Your task to perform on an android device: What's on my calendar today? Image 0: 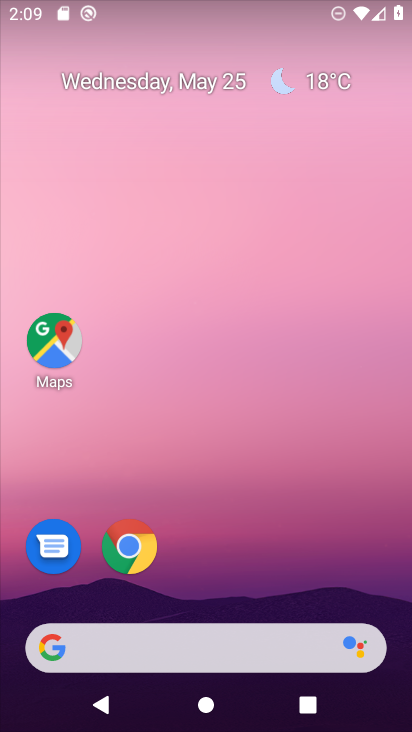
Step 0: drag from (200, 623) to (276, 143)
Your task to perform on an android device: What's on my calendar today? Image 1: 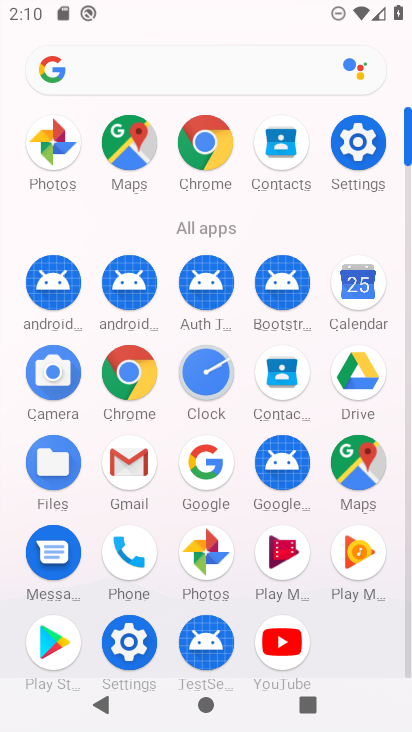
Step 1: click (357, 287)
Your task to perform on an android device: What's on my calendar today? Image 2: 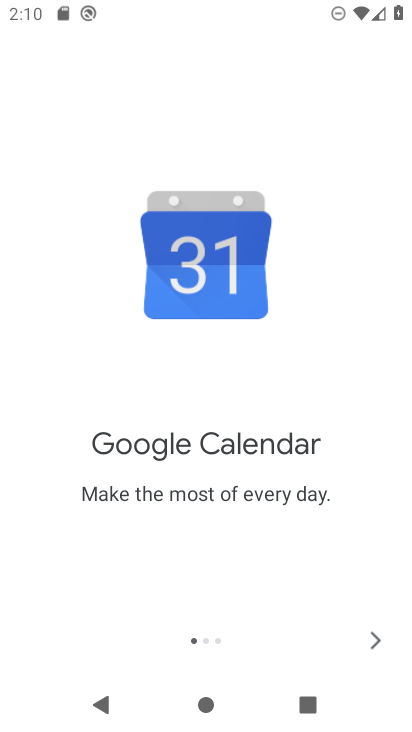
Step 2: click (353, 637)
Your task to perform on an android device: What's on my calendar today? Image 3: 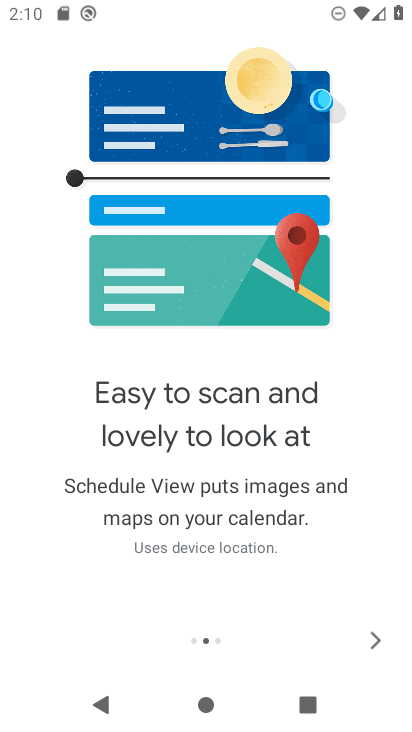
Step 3: click (375, 627)
Your task to perform on an android device: What's on my calendar today? Image 4: 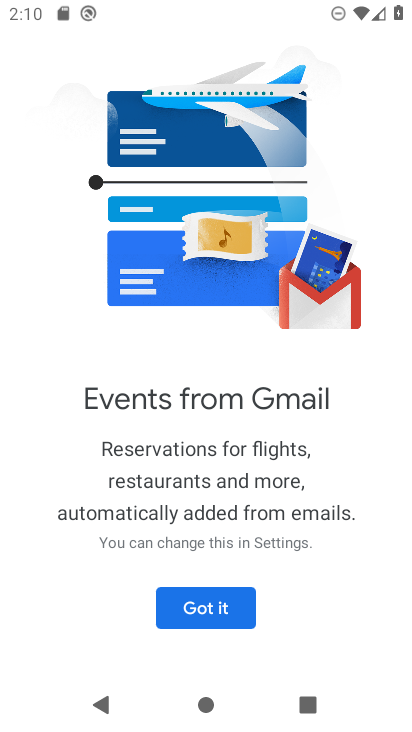
Step 4: click (198, 600)
Your task to perform on an android device: What's on my calendar today? Image 5: 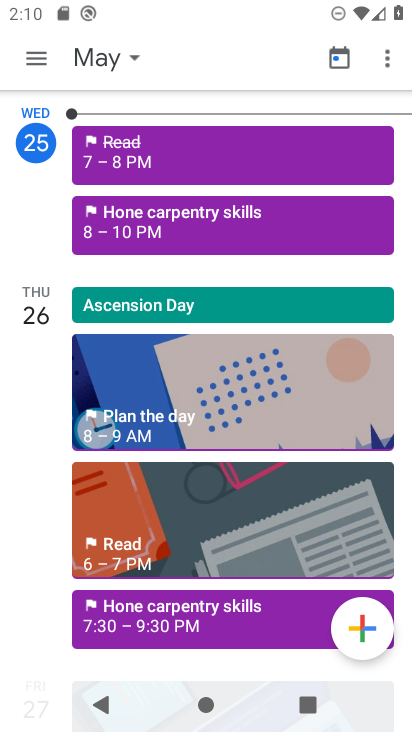
Step 5: click (26, 56)
Your task to perform on an android device: What's on my calendar today? Image 6: 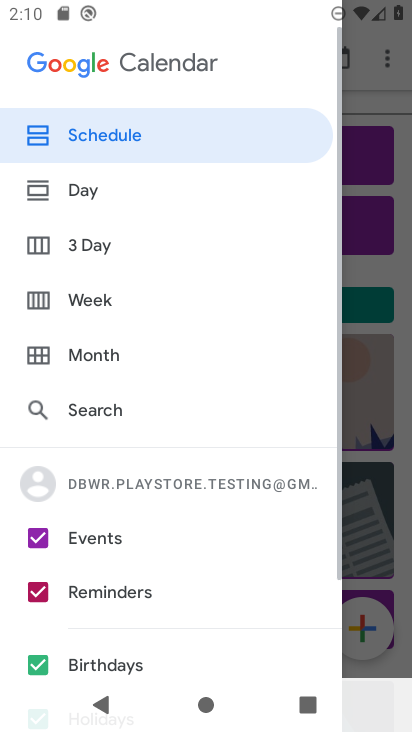
Step 6: click (109, 200)
Your task to perform on an android device: What's on my calendar today? Image 7: 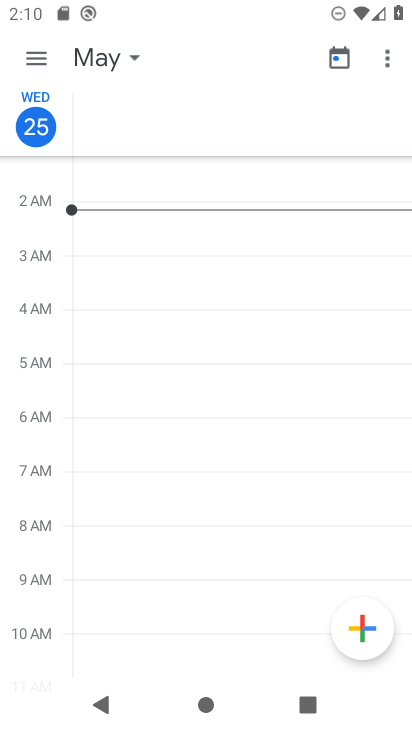
Step 7: task complete